Your task to perform on an android device: open app "Venmo" Image 0: 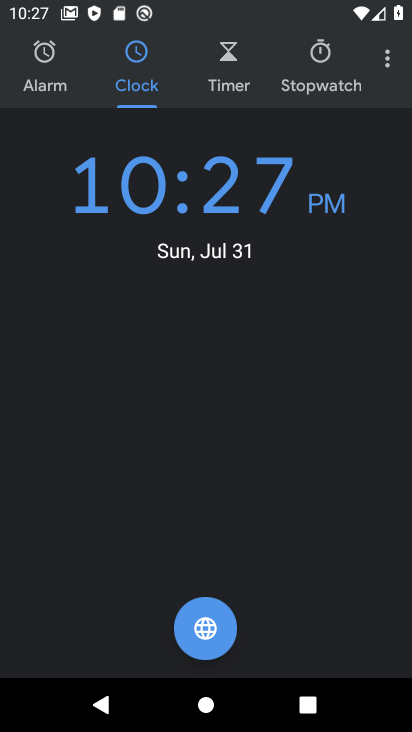
Step 0: press home button
Your task to perform on an android device: open app "Venmo" Image 1: 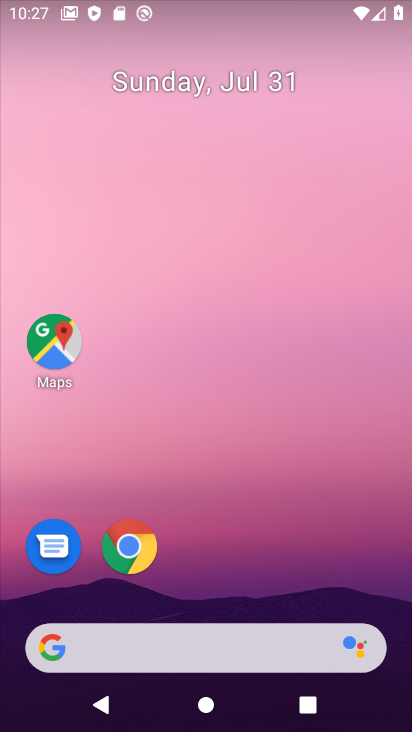
Step 1: drag from (220, 670) to (209, 39)
Your task to perform on an android device: open app "Venmo" Image 2: 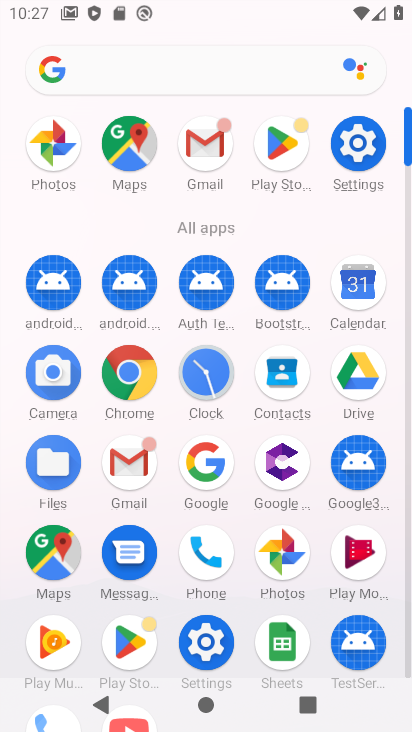
Step 2: click (300, 123)
Your task to perform on an android device: open app "Venmo" Image 3: 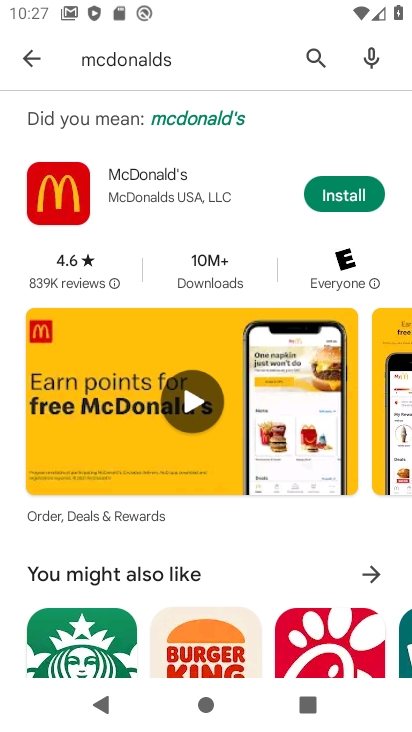
Step 3: click (319, 54)
Your task to perform on an android device: open app "Venmo" Image 4: 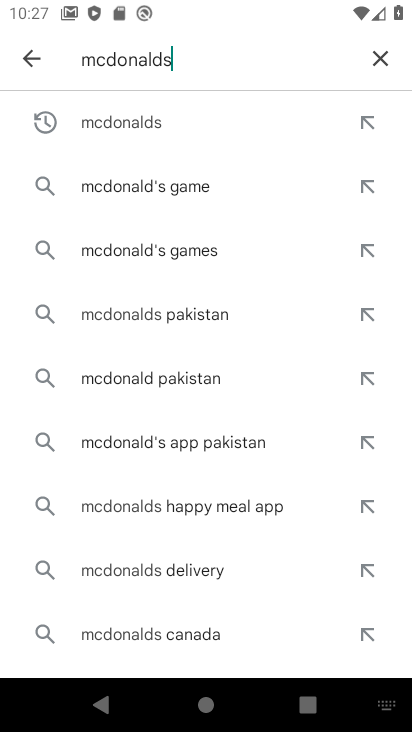
Step 4: click (381, 61)
Your task to perform on an android device: open app "Venmo" Image 5: 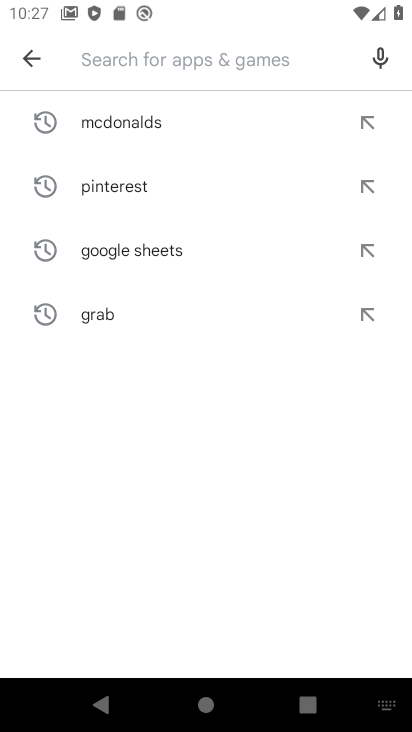
Step 5: type "venmo"
Your task to perform on an android device: open app "Venmo" Image 6: 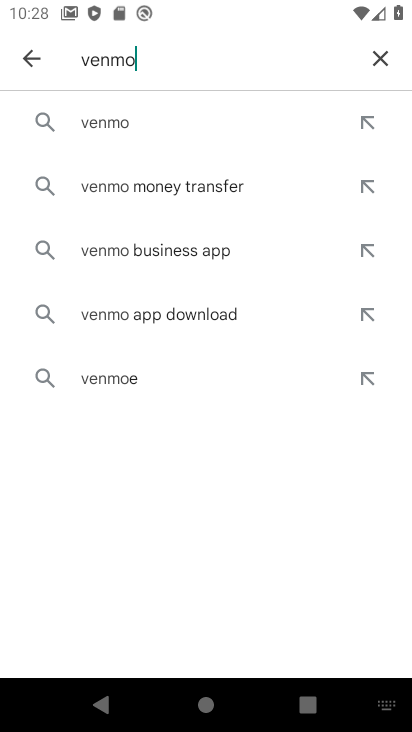
Step 6: click (150, 103)
Your task to perform on an android device: open app "Venmo" Image 7: 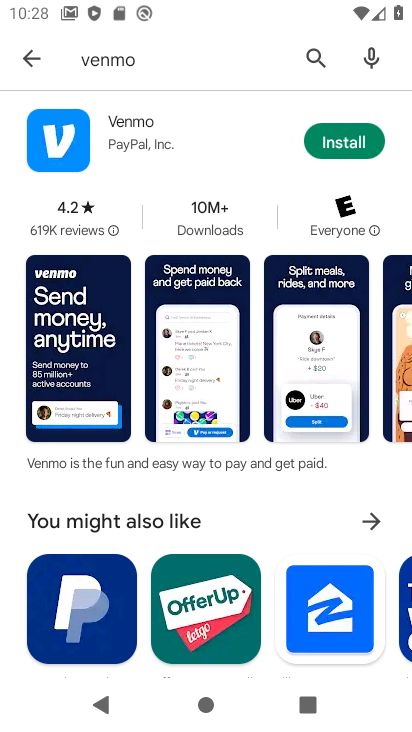
Step 7: task complete